Your task to perform on an android device: Search for sushi restaurants on Maps Image 0: 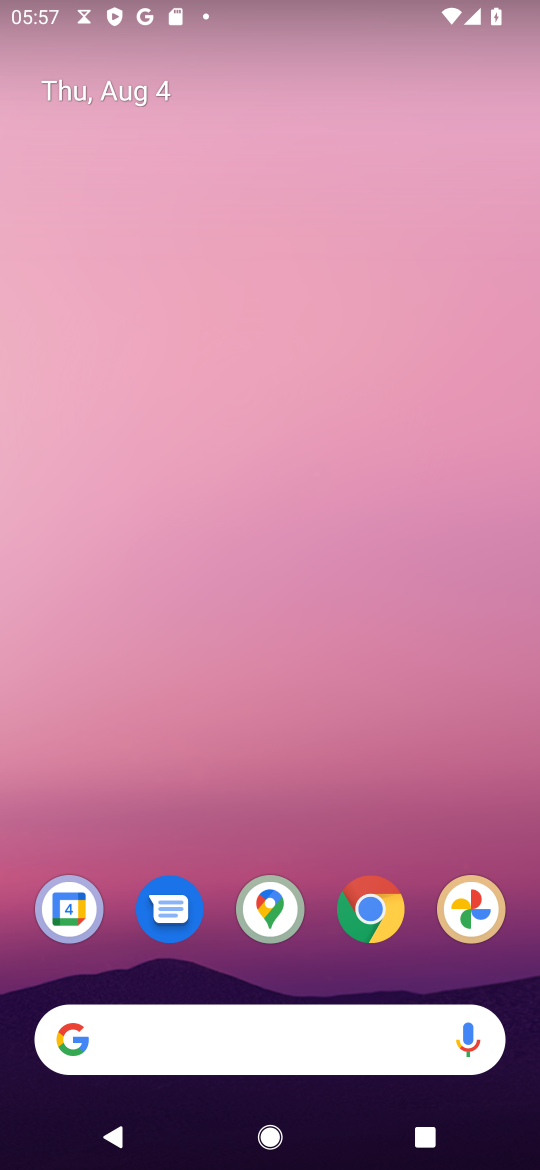
Step 0: press home button
Your task to perform on an android device: Search for sushi restaurants on Maps Image 1: 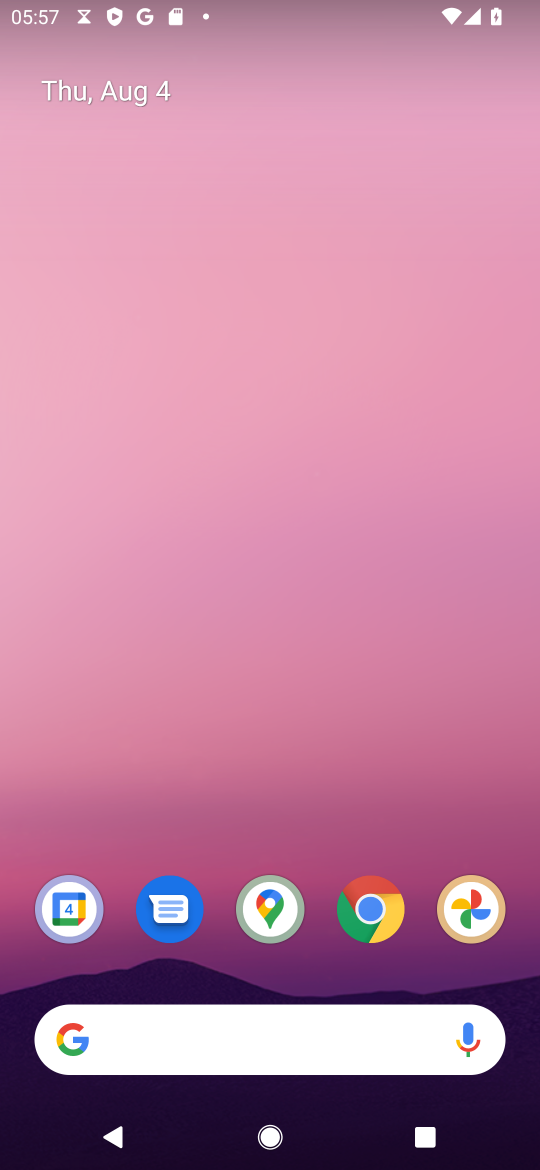
Step 1: drag from (213, 1049) to (239, 376)
Your task to perform on an android device: Search for sushi restaurants on Maps Image 2: 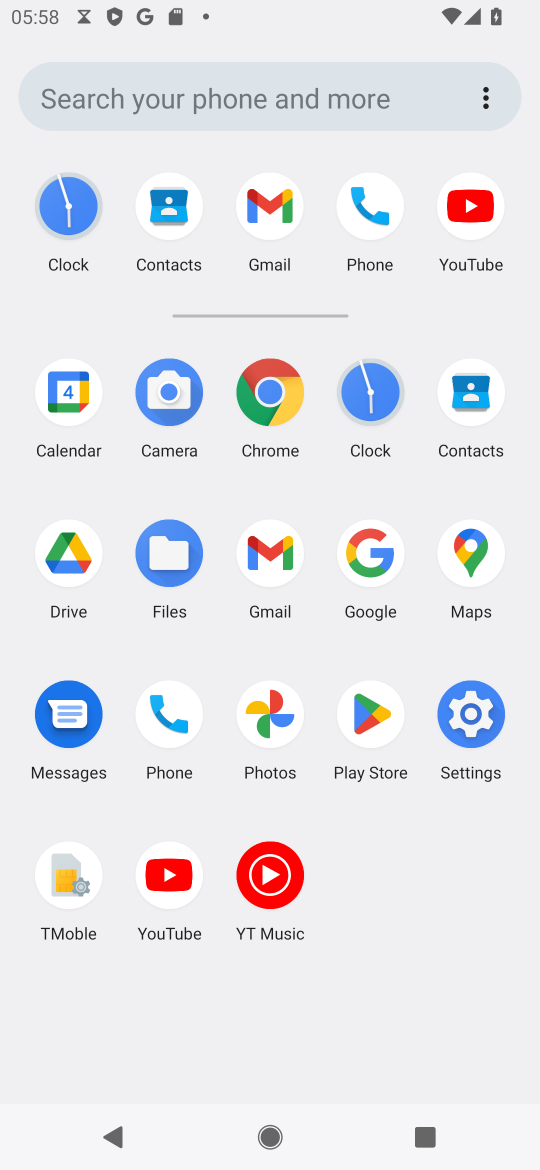
Step 2: click (467, 557)
Your task to perform on an android device: Search for sushi restaurants on Maps Image 3: 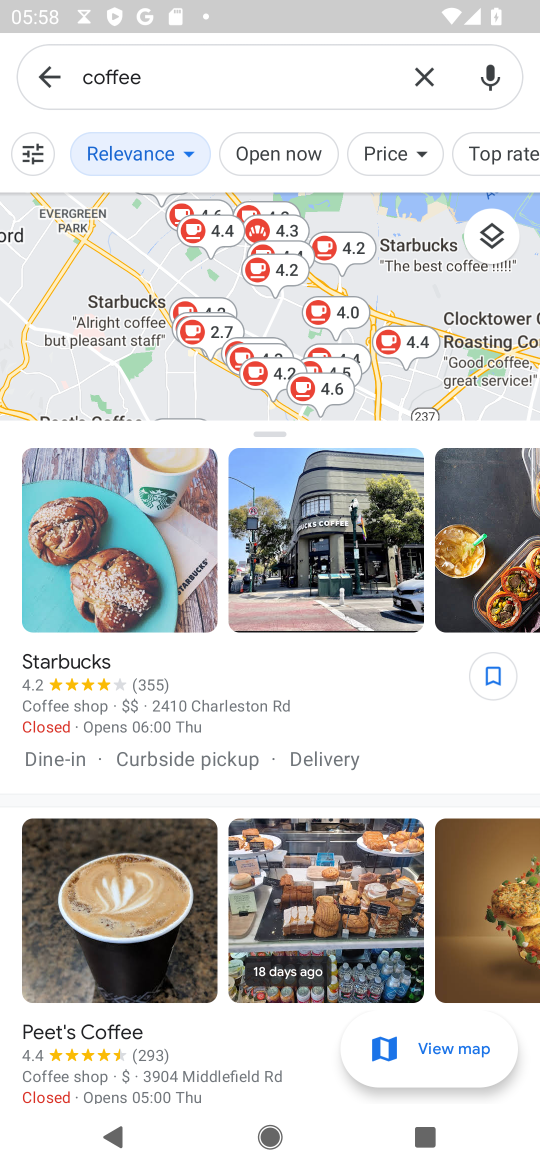
Step 3: click (424, 77)
Your task to perform on an android device: Search for sushi restaurants on Maps Image 4: 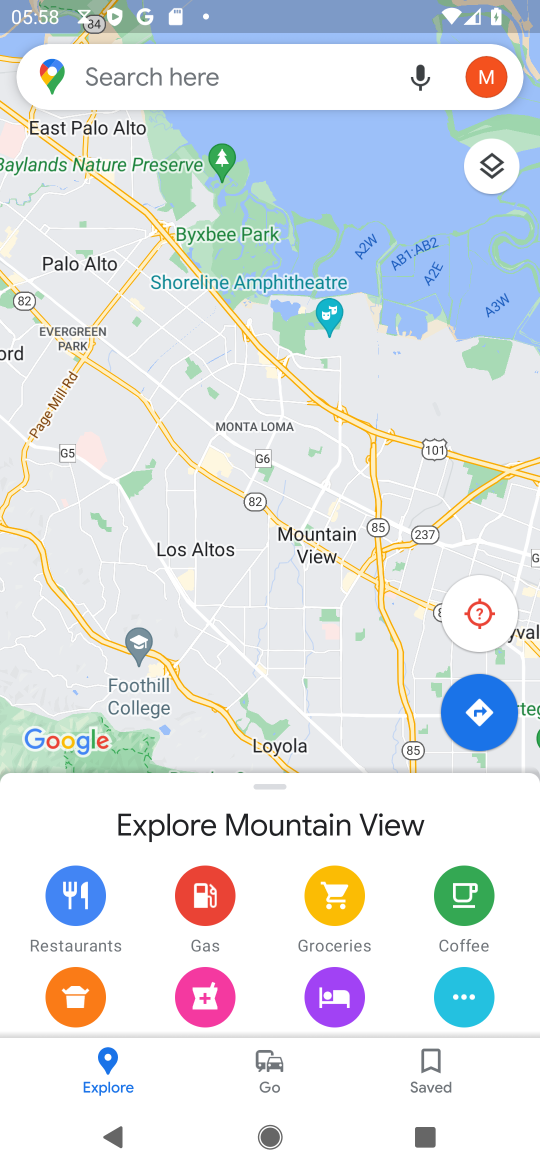
Step 4: click (193, 82)
Your task to perform on an android device: Search for sushi restaurants on Maps Image 5: 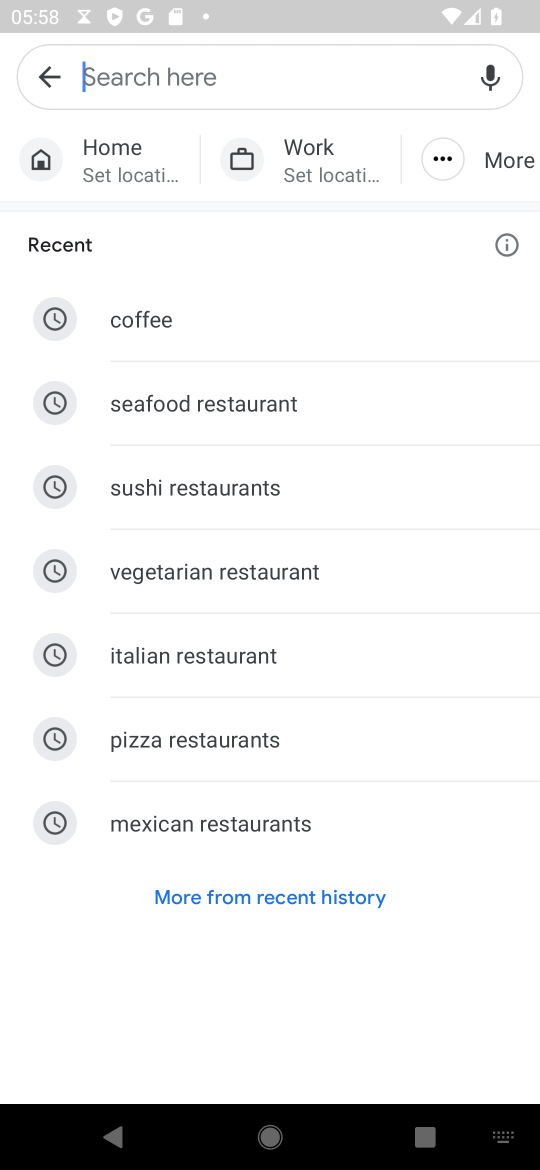
Step 5: click (207, 490)
Your task to perform on an android device: Search for sushi restaurants on Maps Image 6: 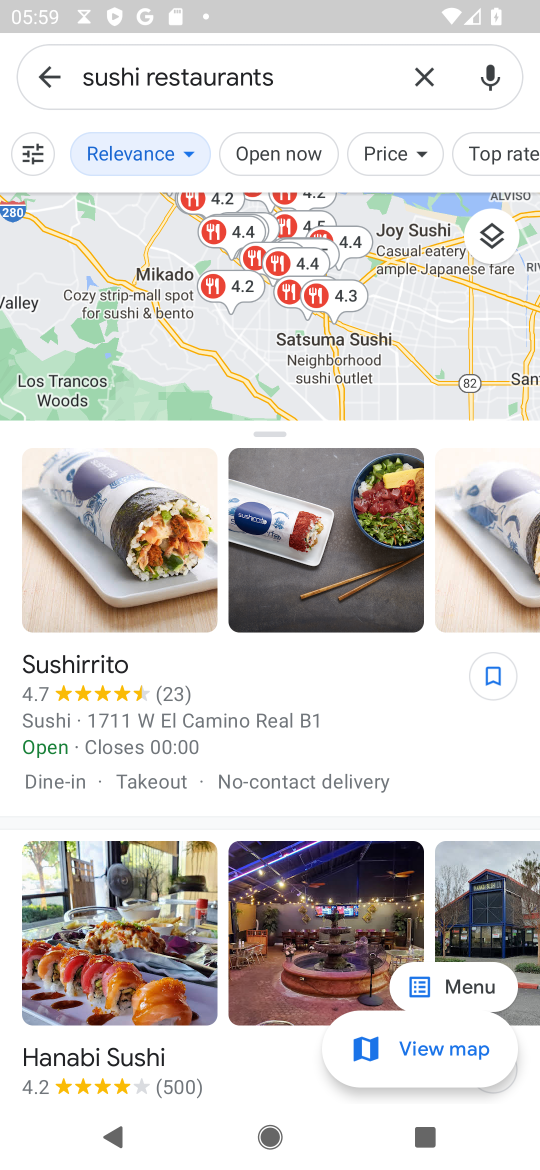
Step 6: task complete